Your task to perform on an android device: turn notification dots off Image 0: 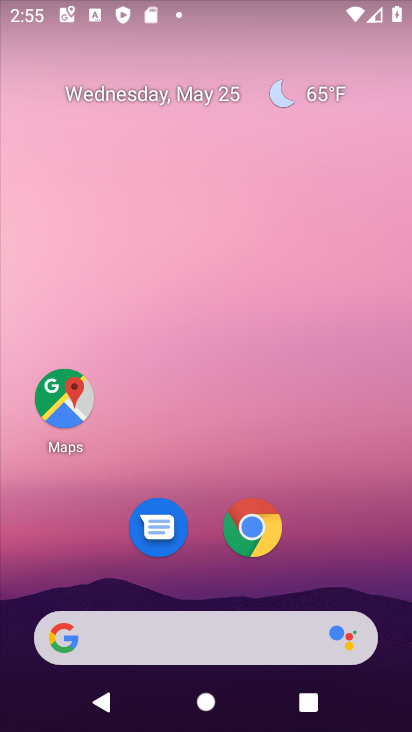
Step 0: drag from (334, 599) to (395, 2)
Your task to perform on an android device: turn notification dots off Image 1: 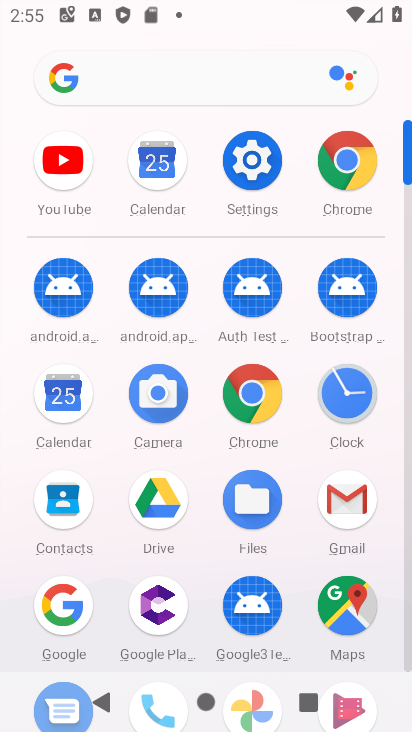
Step 1: click (258, 172)
Your task to perform on an android device: turn notification dots off Image 2: 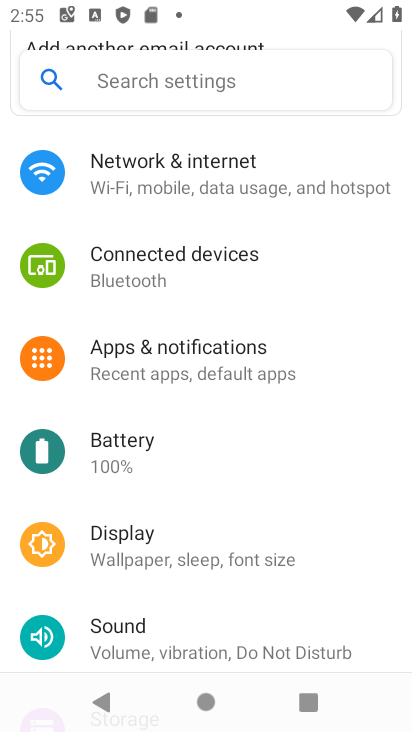
Step 2: click (287, 364)
Your task to perform on an android device: turn notification dots off Image 3: 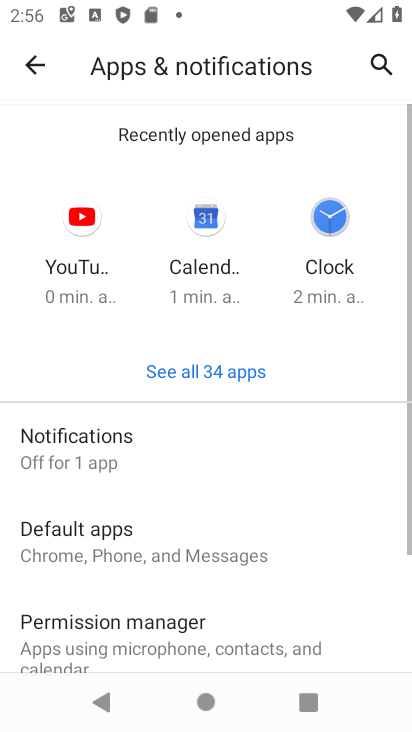
Step 3: drag from (255, 595) to (246, 242)
Your task to perform on an android device: turn notification dots off Image 4: 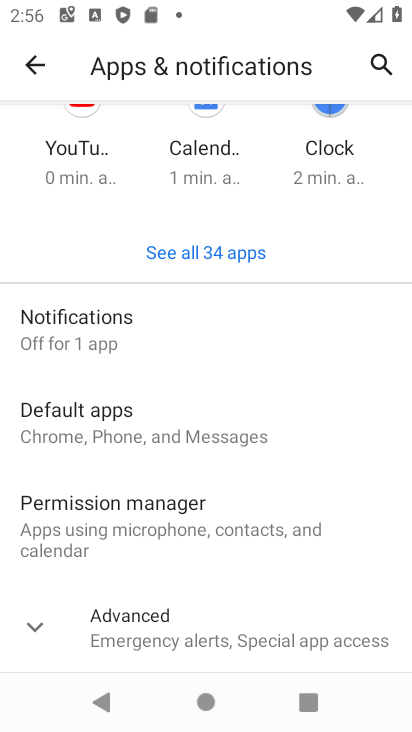
Step 4: click (131, 325)
Your task to perform on an android device: turn notification dots off Image 5: 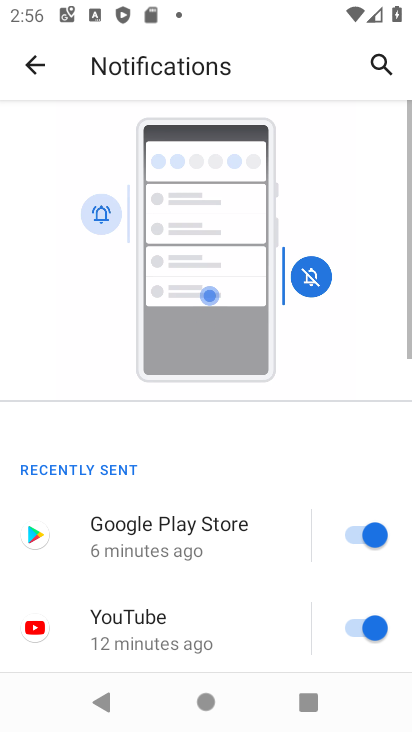
Step 5: drag from (249, 648) to (307, 162)
Your task to perform on an android device: turn notification dots off Image 6: 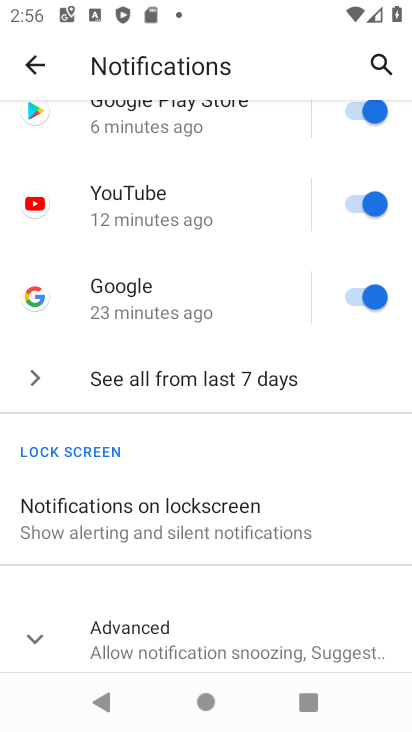
Step 6: click (221, 637)
Your task to perform on an android device: turn notification dots off Image 7: 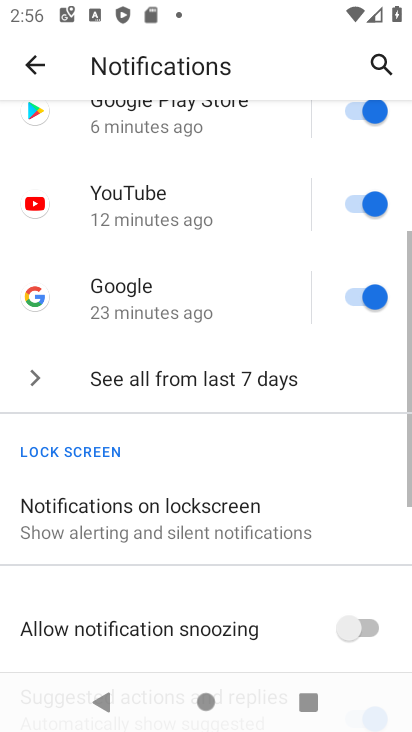
Step 7: drag from (268, 577) to (309, 156)
Your task to perform on an android device: turn notification dots off Image 8: 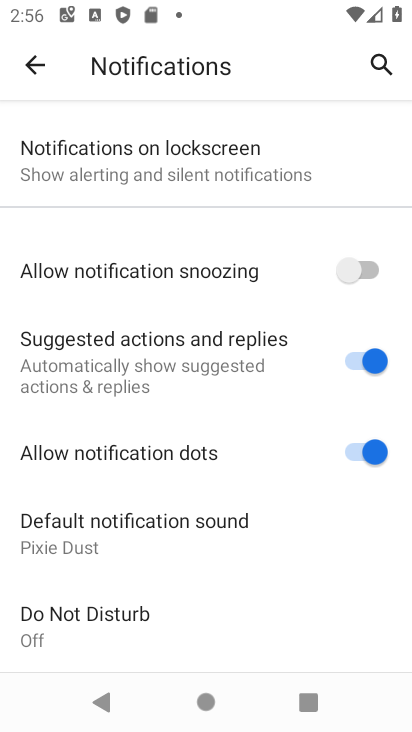
Step 8: click (372, 451)
Your task to perform on an android device: turn notification dots off Image 9: 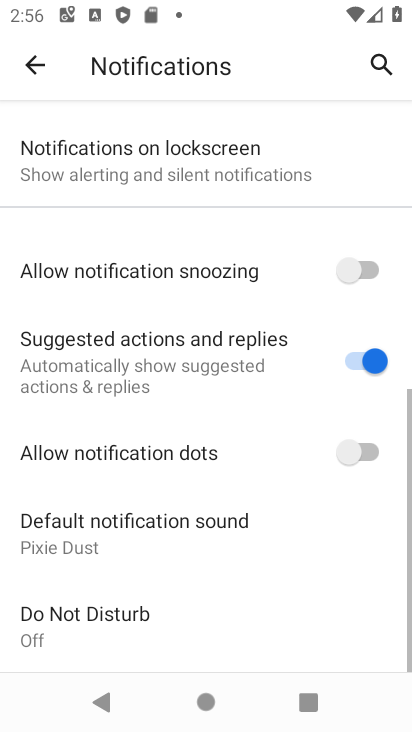
Step 9: task complete